Your task to perform on an android device: Go to battery settings Image 0: 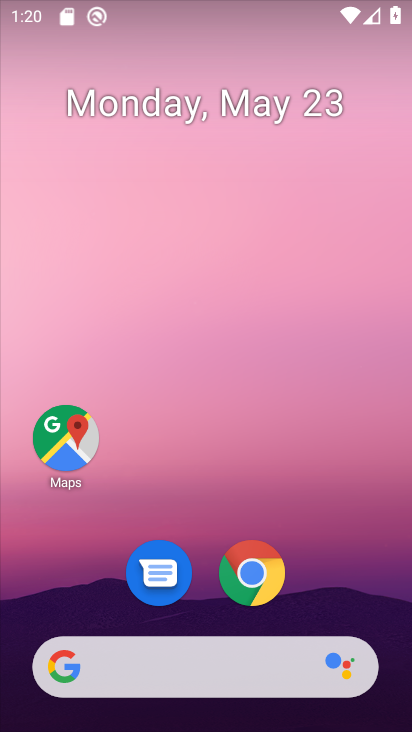
Step 0: click (322, 585)
Your task to perform on an android device: Go to battery settings Image 1: 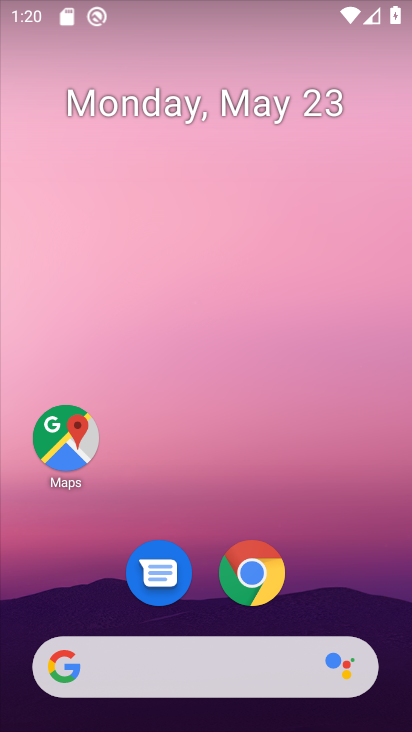
Step 1: drag from (322, 585) to (306, 233)
Your task to perform on an android device: Go to battery settings Image 2: 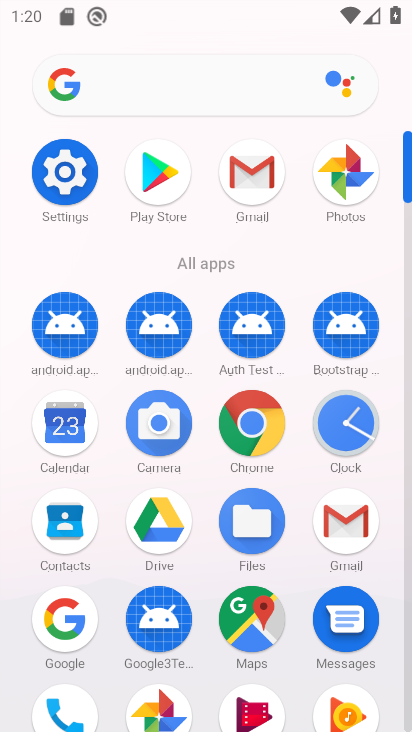
Step 2: click (58, 182)
Your task to perform on an android device: Go to battery settings Image 3: 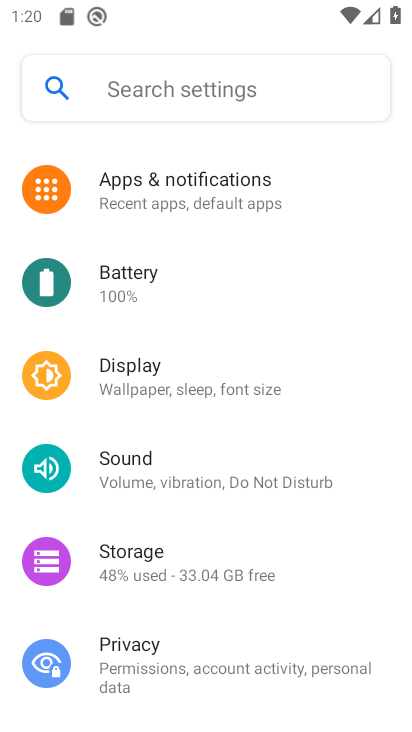
Step 3: click (121, 285)
Your task to perform on an android device: Go to battery settings Image 4: 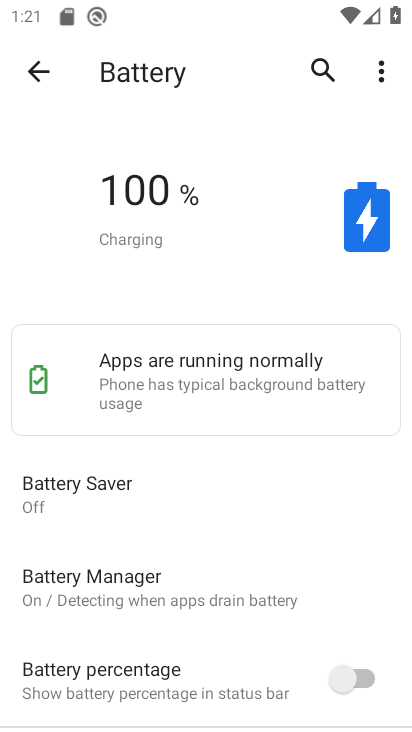
Step 4: task complete